Your task to perform on an android device: turn on the 24-hour format for clock Image 0: 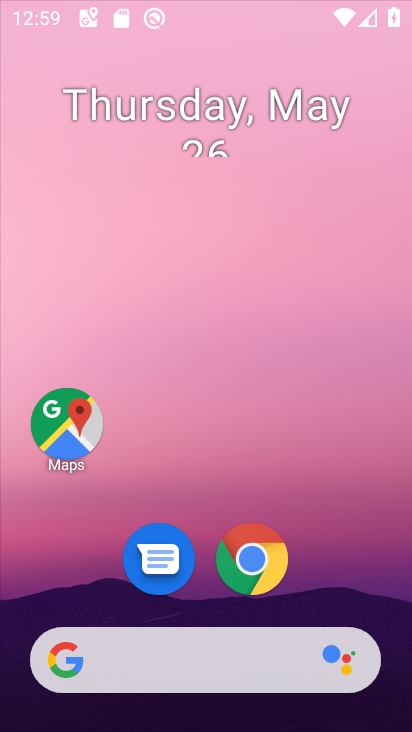
Step 0: press home button
Your task to perform on an android device: turn on the 24-hour format for clock Image 1: 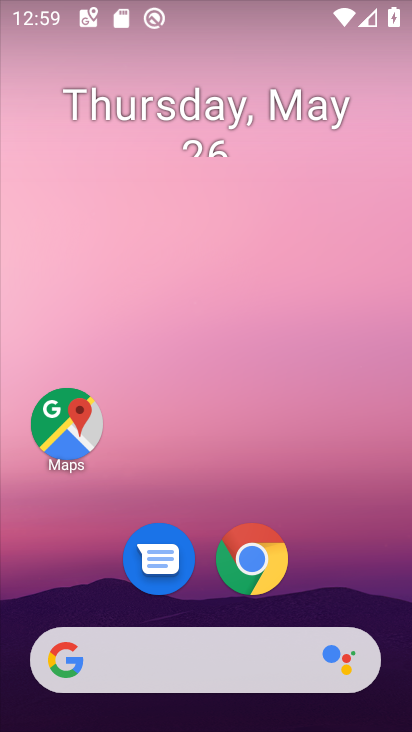
Step 1: drag from (317, 595) to (270, 178)
Your task to perform on an android device: turn on the 24-hour format for clock Image 2: 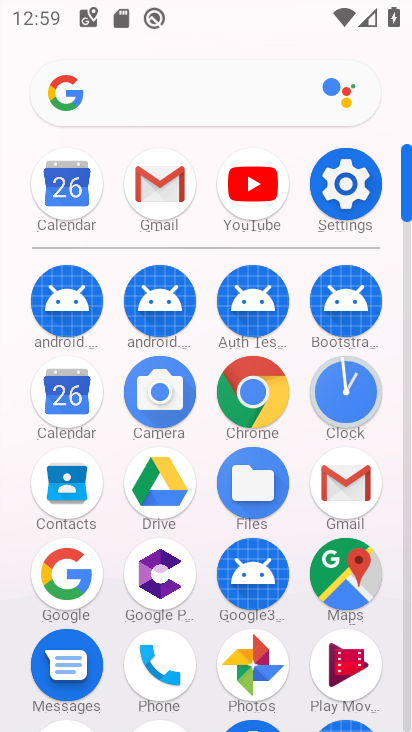
Step 2: click (331, 196)
Your task to perform on an android device: turn on the 24-hour format for clock Image 3: 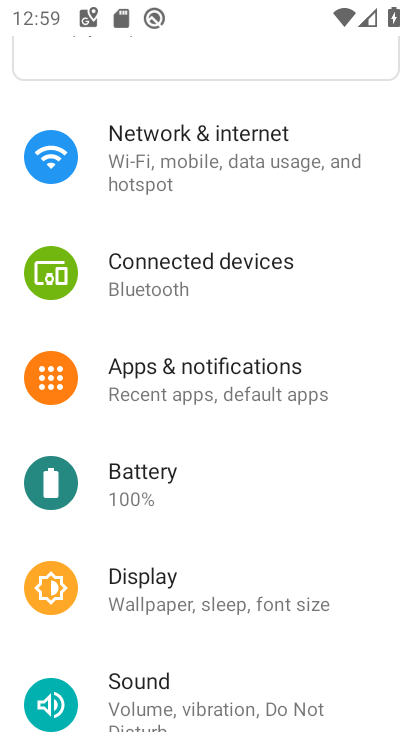
Step 3: drag from (366, 614) to (351, 91)
Your task to perform on an android device: turn on the 24-hour format for clock Image 4: 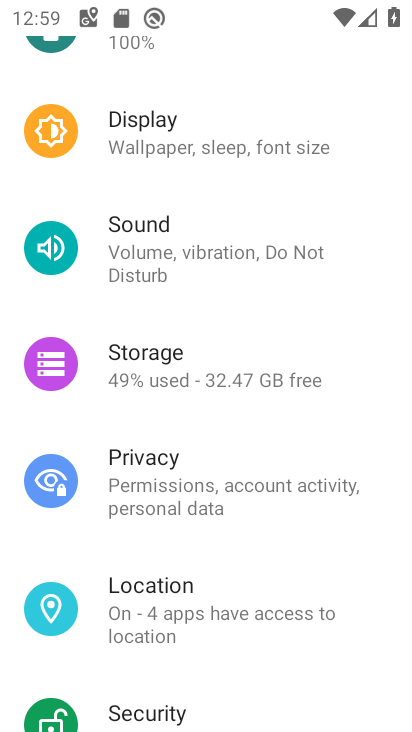
Step 4: drag from (299, 571) to (285, 145)
Your task to perform on an android device: turn on the 24-hour format for clock Image 5: 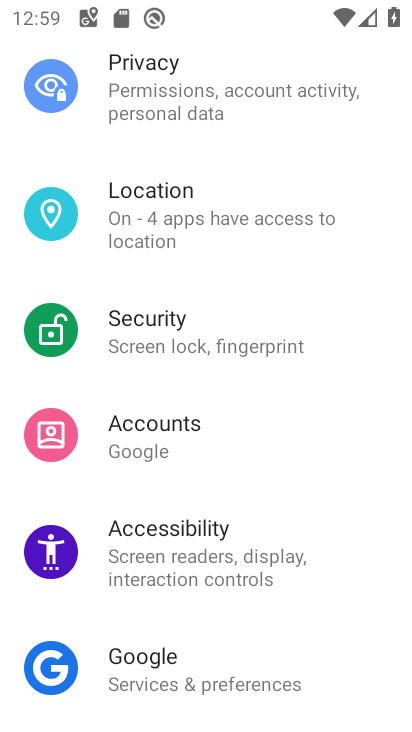
Step 5: drag from (313, 596) to (322, 117)
Your task to perform on an android device: turn on the 24-hour format for clock Image 6: 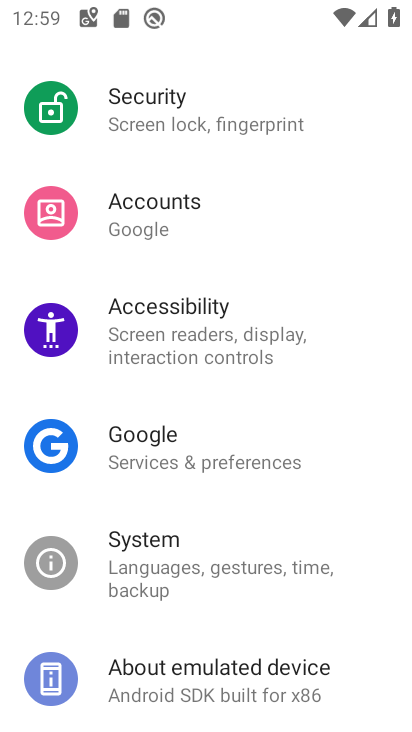
Step 6: click (156, 568)
Your task to perform on an android device: turn on the 24-hour format for clock Image 7: 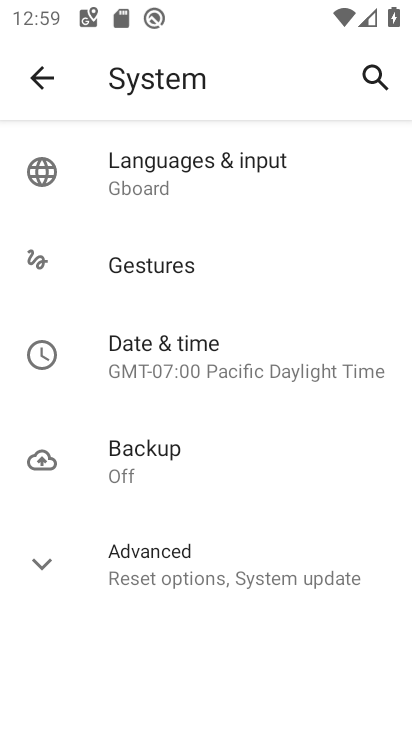
Step 7: click (140, 347)
Your task to perform on an android device: turn on the 24-hour format for clock Image 8: 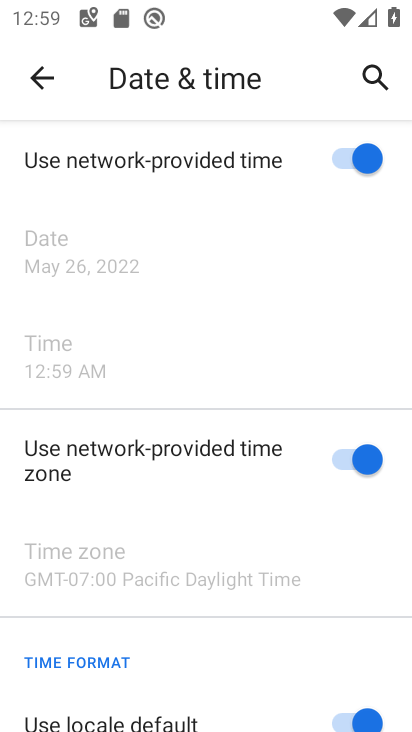
Step 8: drag from (348, 573) to (348, 235)
Your task to perform on an android device: turn on the 24-hour format for clock Image 9: 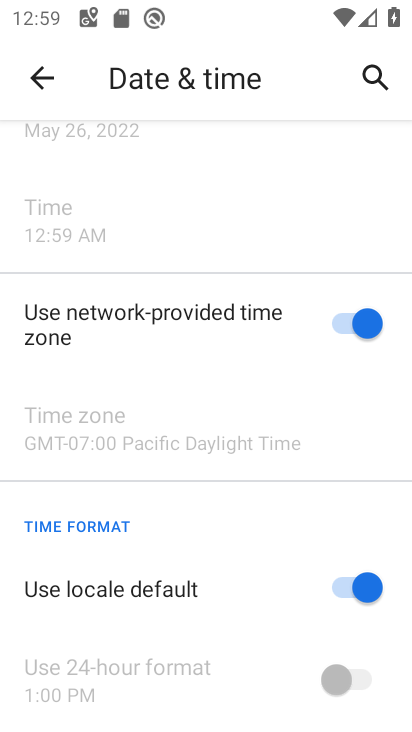
Step 9: click (337, 681)
Your task to perform on an android device: turn on the 24-hour format for clock Image 10: 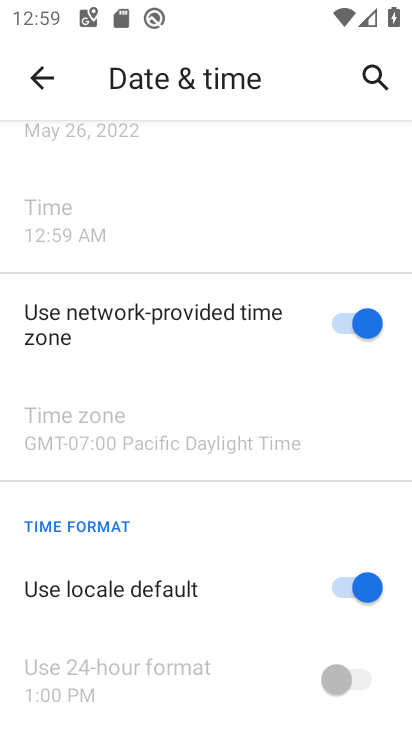
Step 10: click (360, 586)
Your task to perform on an android device: turn on the 24-hour format for clock Image 11: 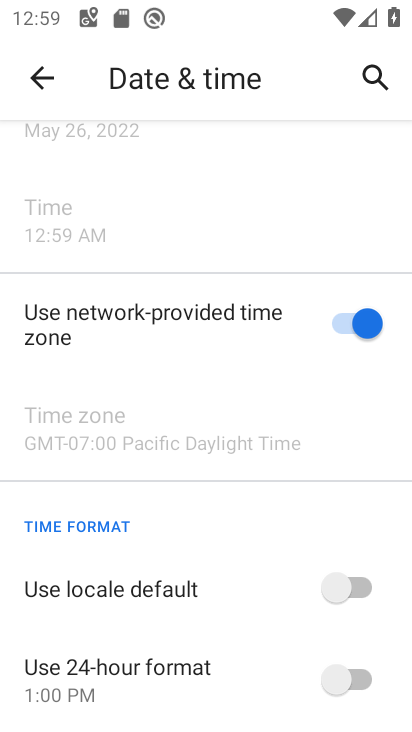
Step 11: click (343, 675)
Your task to perform on an android device: turn on the 24-hour format for clock Image 12: 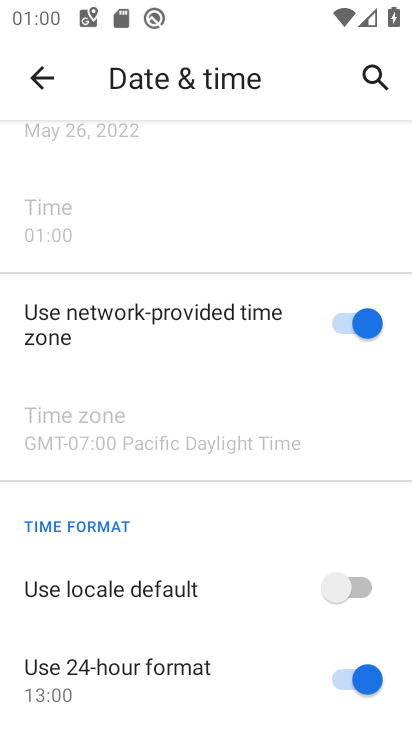
Step 12: task complete